Your task to perform on an android device: Open internet settings Image 0: 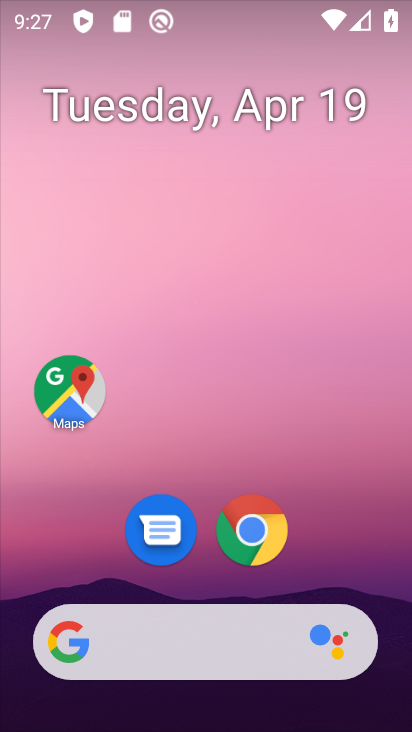
Step 0: drag from (87, 552) to (234, 108)
Your task to perform on an android device: Open internet settings Image 1: 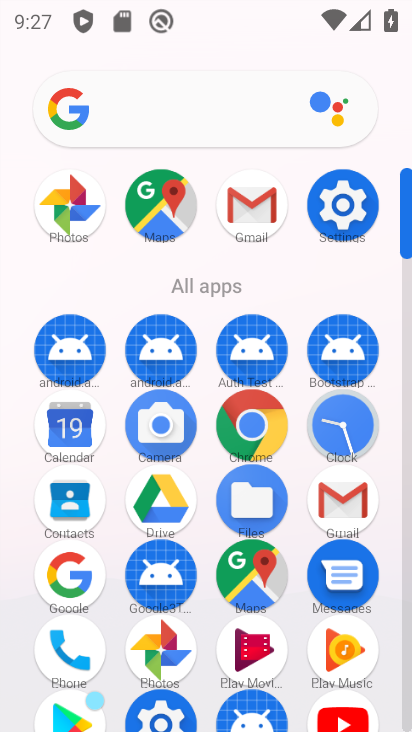
Step 1: click (346, 206)
Your task to perform on an android device: Open internet settings Image 2: 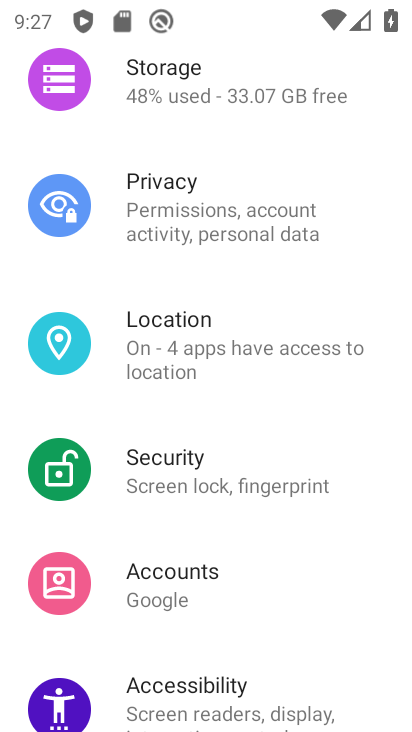
Step 2: drag from (290, 146) to (237, 556)
Your task to perform on an android device: Open internet settings Image 3: 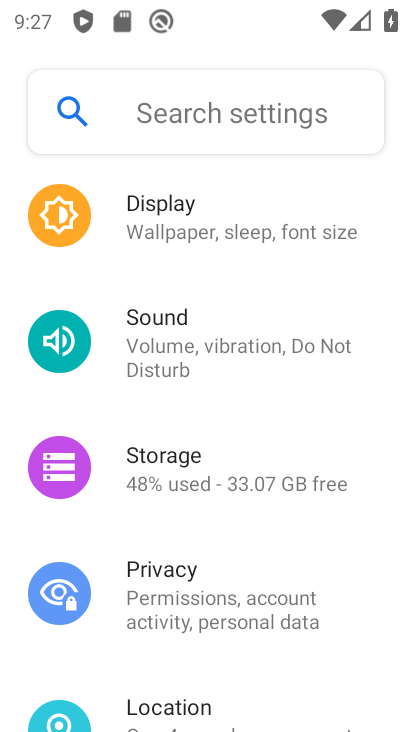
Step 3: drag from (256, 271) to (239, 546)
Your task to perform on an android device: Open internet settings Image 4: 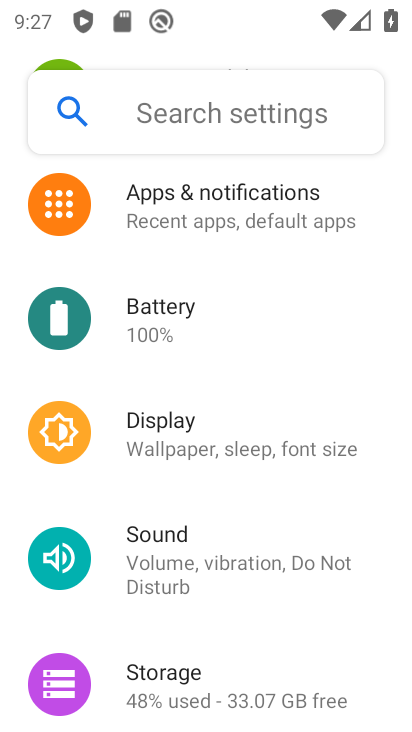
Step 4: drag from (284, 320) to (241, 545)
Your task to perform on an android device: Open internet settings Image 5: 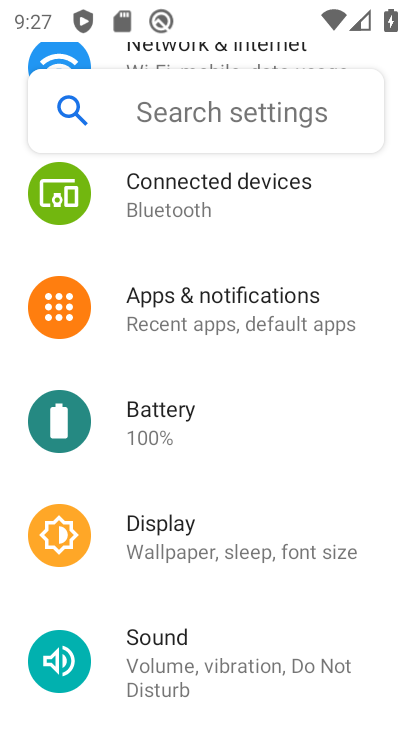
Step 5: drag from (263, 216) to (233, 519)
Your task to perform on an android device: Open internet settings Image 6: 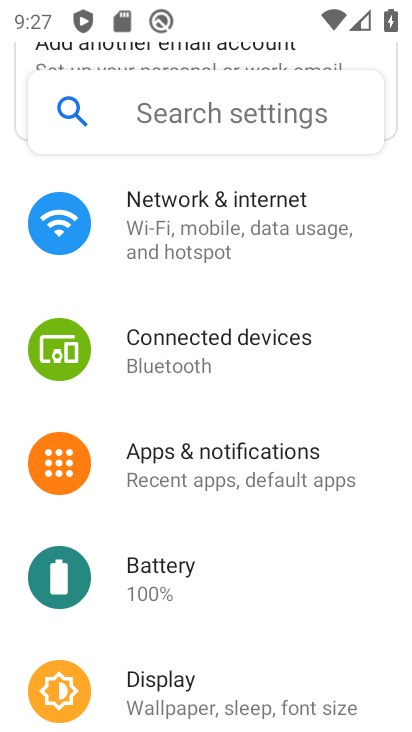
Step 6: click (276, 240)
Your task to perform on an android device: Open internet settings Image 7: 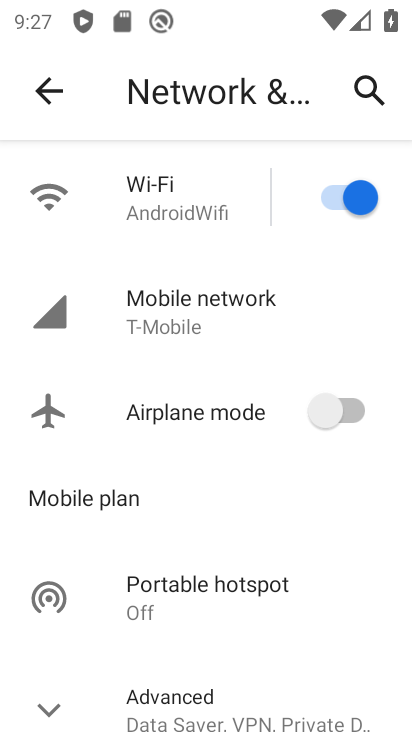
Step 7: click (270, 309)
Your task to perform on an android device: Open internet settings Image 8: 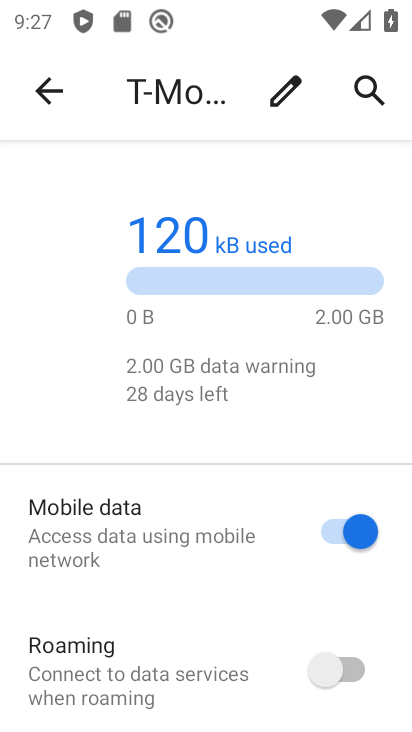
Step 8: task complete